Your task to perform on an android device: Go to battery settings Image 0: 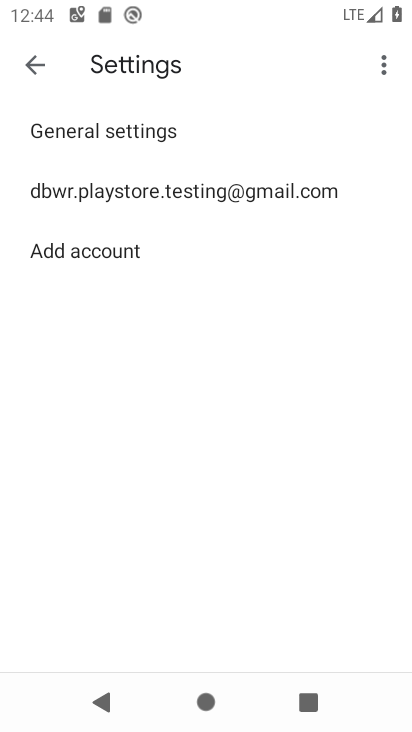
Step 0: press home button
Your task to perform on an android device: Go to battery settings Image 1: 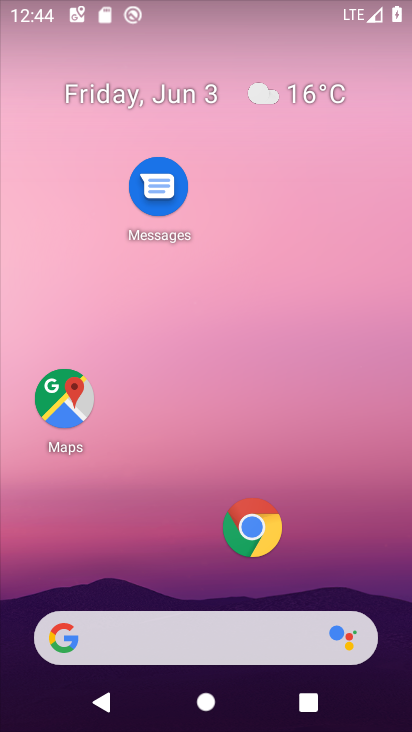
Step 1: drag from (193, 594) to (233, 60)
Your task to perform on an android device: Go to battery settings Image 2: 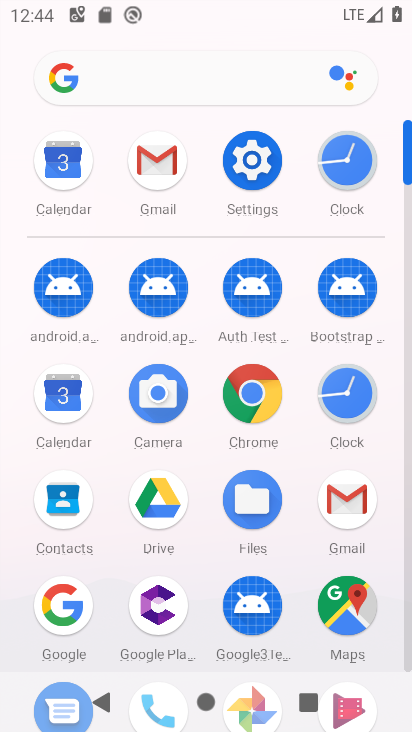
Step 2: click (251, 153)
Your task to perform on an android device: Go to battery settings Image 3: 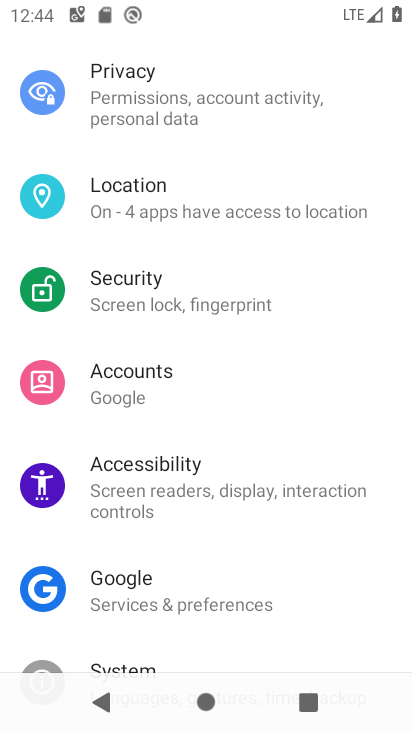
Step 3: drag from (222, 117) to (243, 605)
Your task to perform on an android device: Go to battery settings Image 4: 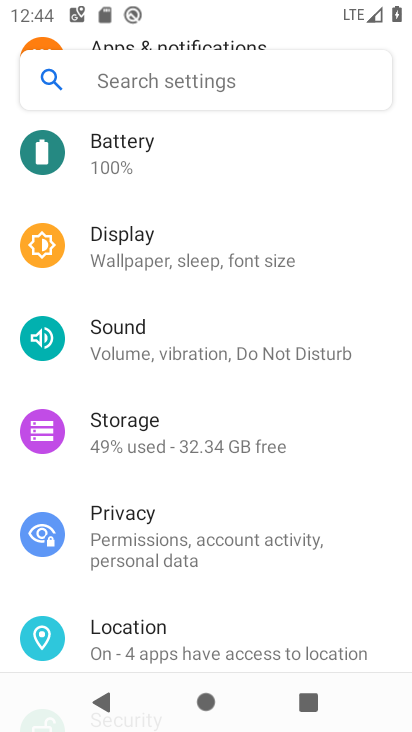
Step 4: click (153, 148)
Your task to perform on an android device: Go to battery settings Image 5: 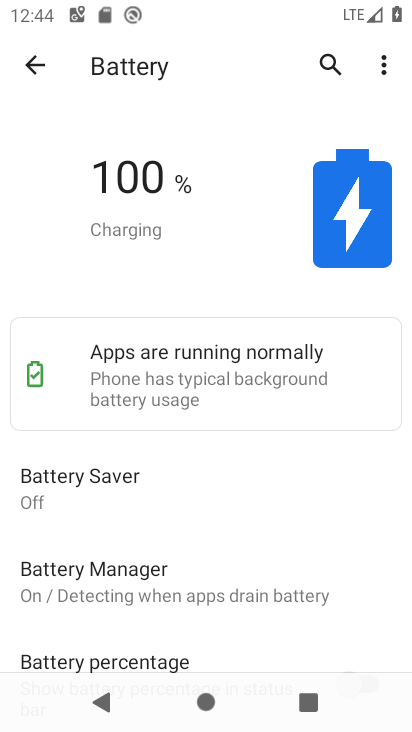
Step 5: task complete